Your task to perform on an android device: visit the assistant section in the google photos Image 0: 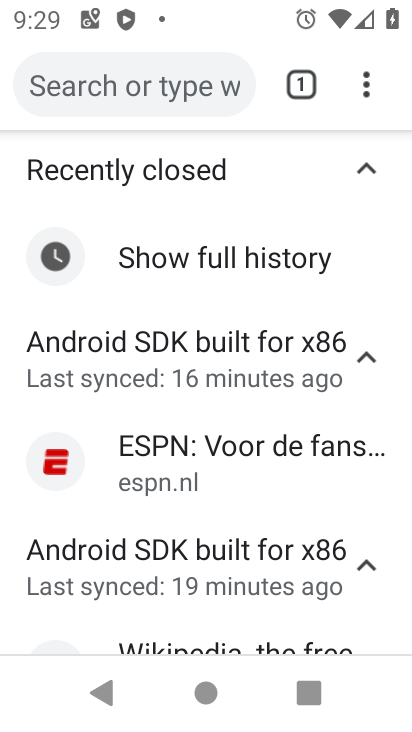
Step 0: press back button
Your task to perform on an android device: visit the assistant section in the google photos Image 1: 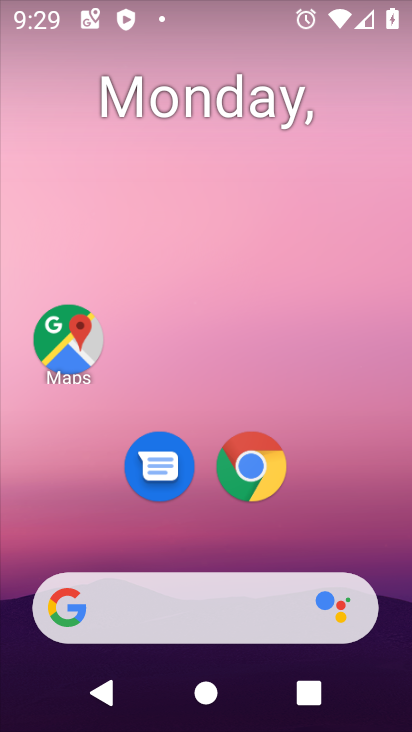
Step 1: drag from (384, 594) to (169, 65)
Your task to perform on an android device: visit the assistant section in the google photos Image 2: 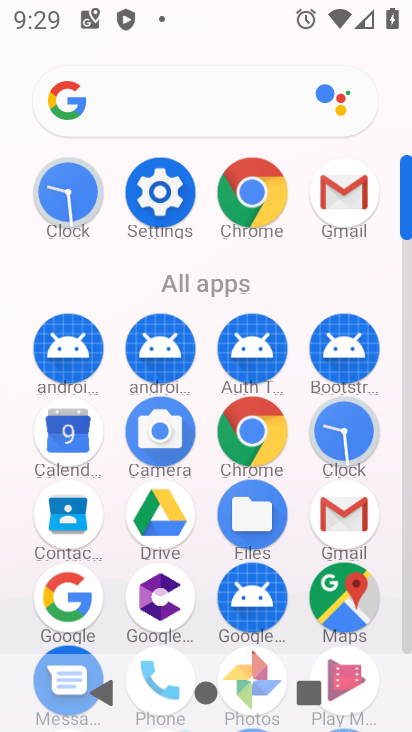
Step 2: drag from (307, 561) to (201, 169)
Your task to perform on an android device: visit the assistant section in the google photos Image 3: 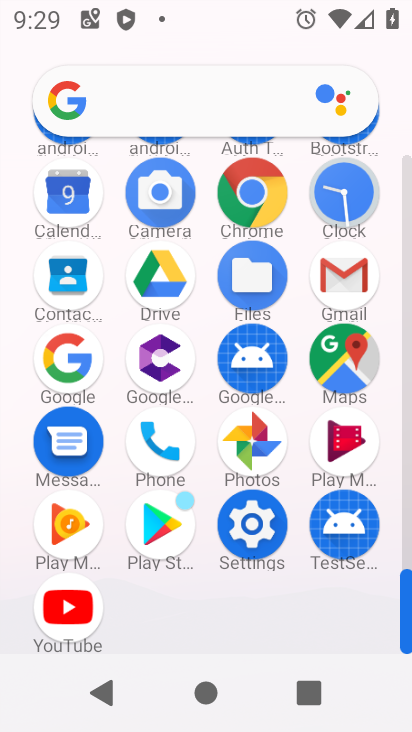
Step 3: click (257, 445)
Your task to perform on an android device: visit the assistant section in the google photos Image 4: 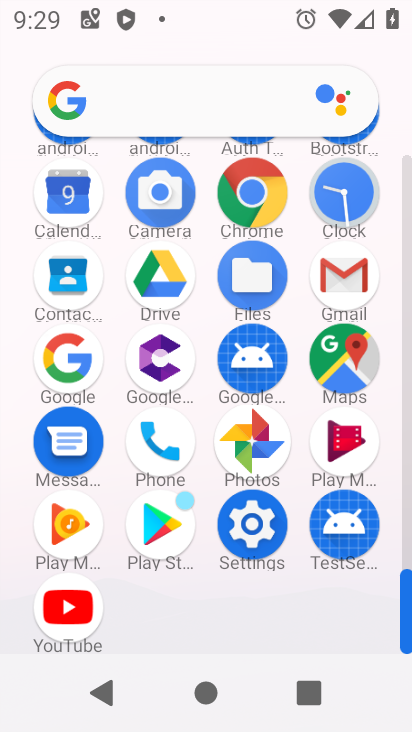
Step 4: click (257, 445)
Your task to perform on an android device: visit the assistant section in the google photos Image 5: 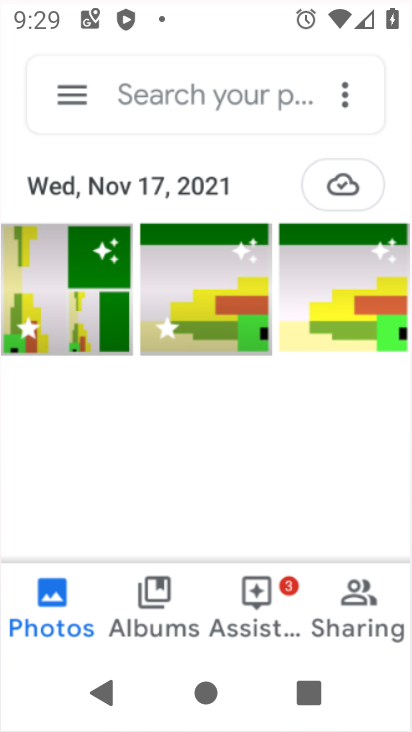
Step 5: click (259, 445)
Your task to perform on an android device: visit the assistant section in the google photos Image 6: 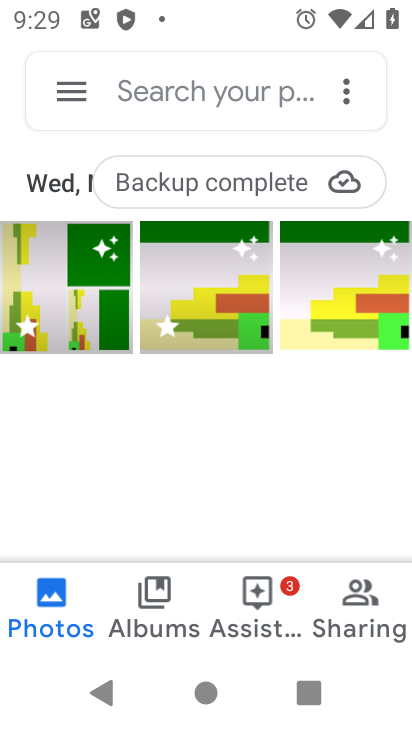
Step 6: click (263, 604)
Your task to perform on an android device: visit the assistant section in the google photos Image 7: 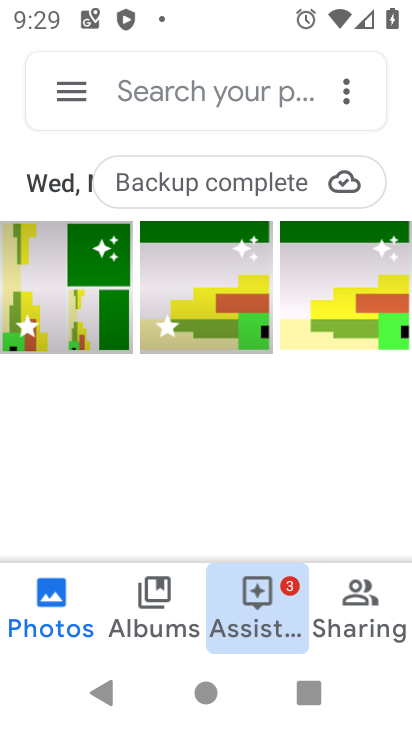
Step 7: click (263, 604)
Your task to perform on an android device: visit the assistant section in the google photos Image 8: 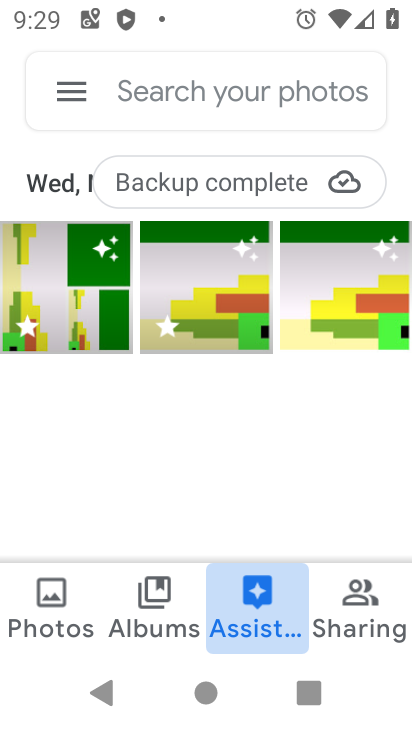
Step 8: click (263, 604)
Your task to perform on an android device: visit the assistant section in the google photos Image 9: 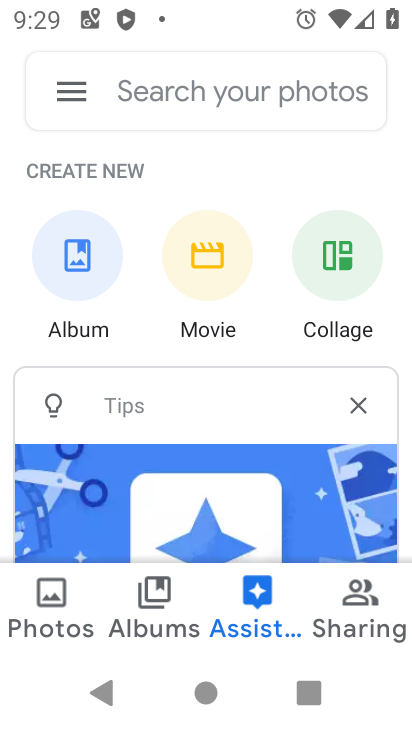
Step 9: click (270, 619)
Your task to perform on an android device: visit the assistant section in the google photos Image 10: 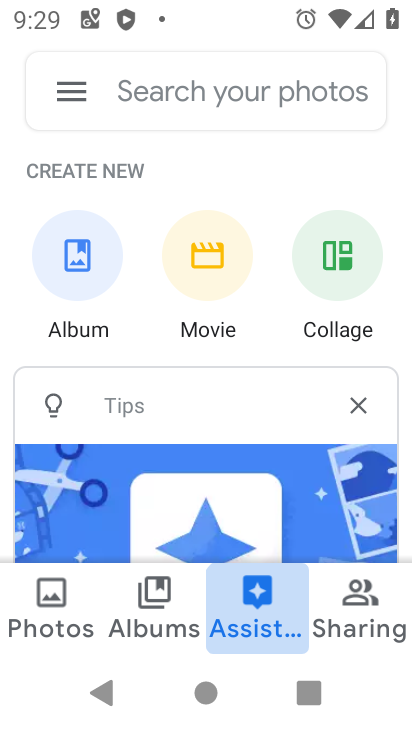
Step 10: click (270, 619)
Your task to perform on an android device: visit the assistant section in the google photos Image 11: 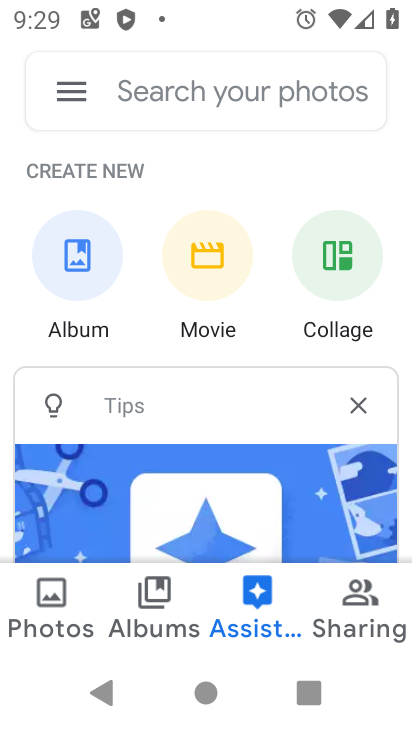
Step 11: click (270, 619)
Your task to perform on an android device: visit the assistant section in the google photos Image 12: 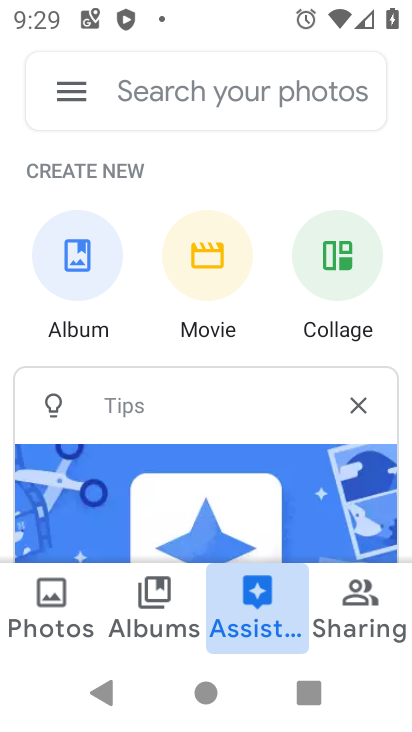
Step 12: click (270, 619)
Your task to perform on an android device: visit the assistant section in the google photos Image 13: 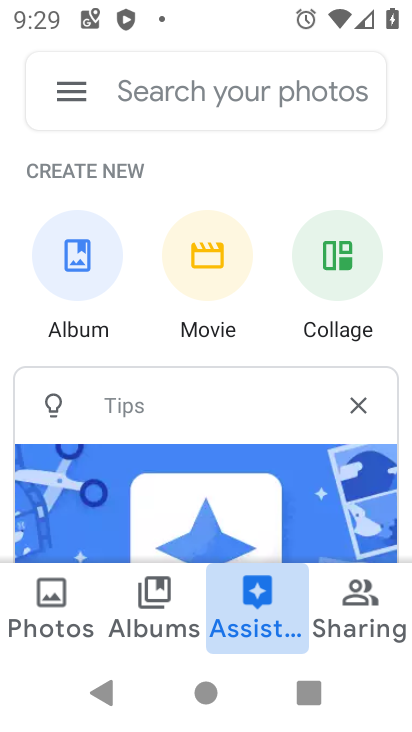
Step 13: click (270, 619)
Your task to perform on an android device: visit the assistant section in the google photos Image 14: 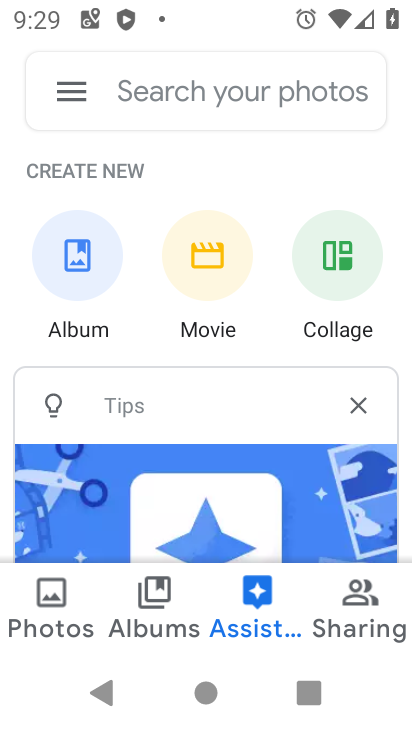
Step 14: task complete